Your task to perform on an android device: Open Wikipedia Image 0: 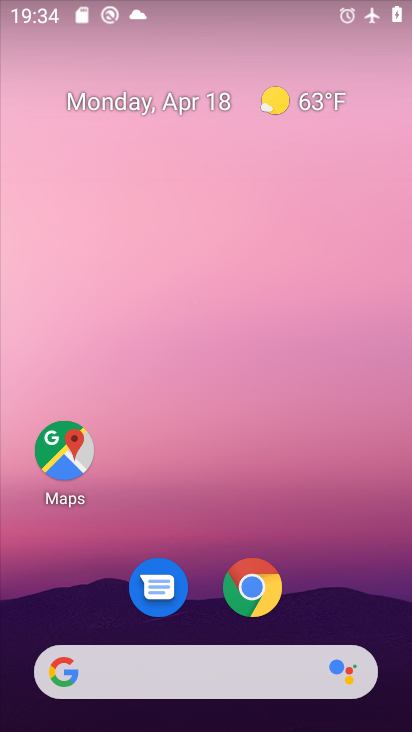
Step 0: click (270, 586)
Your task to perform on an android device: Open Wikipedia Image 1: 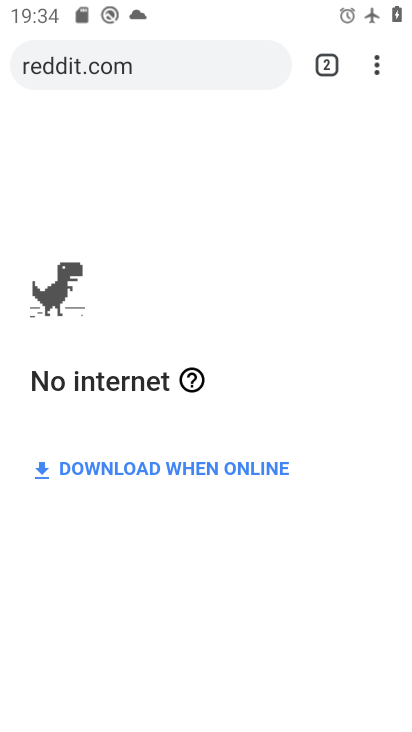
Step 1: press home button
Your task to perform on an android device: Open Wikipedia Image 2: 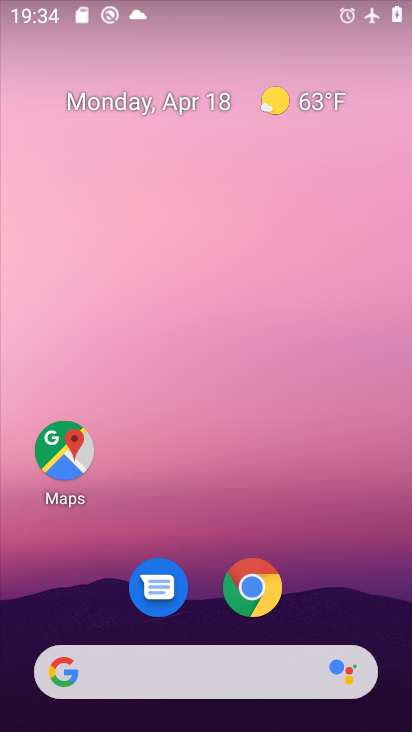
Step 2: drag from (353, 605) to (317, 108)
Your task to perform on an android device: Open Wikipedia Image 3: 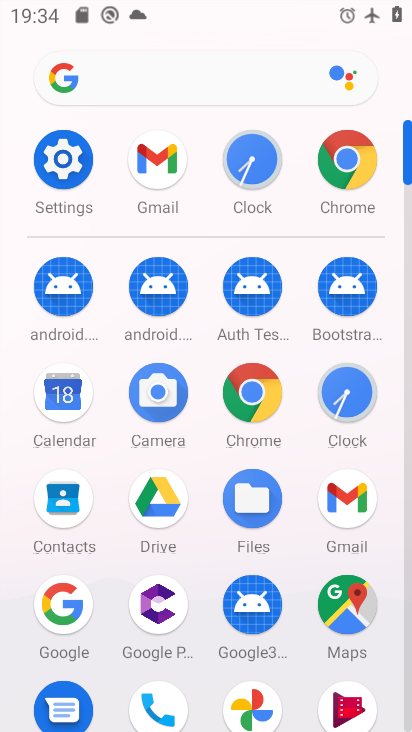
Step 3: click (45, 166)
Your task to perform on an android device: Open Wikipedia Image 4: 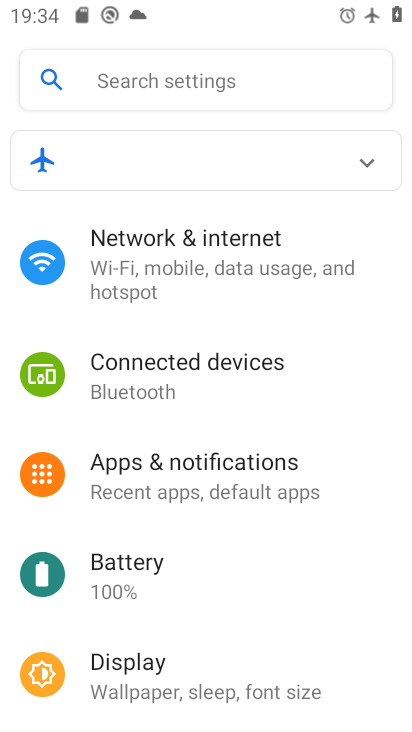
Step 4: click (254, 263)
Your task to perform on an android device: Open Wikipedia Image 5: 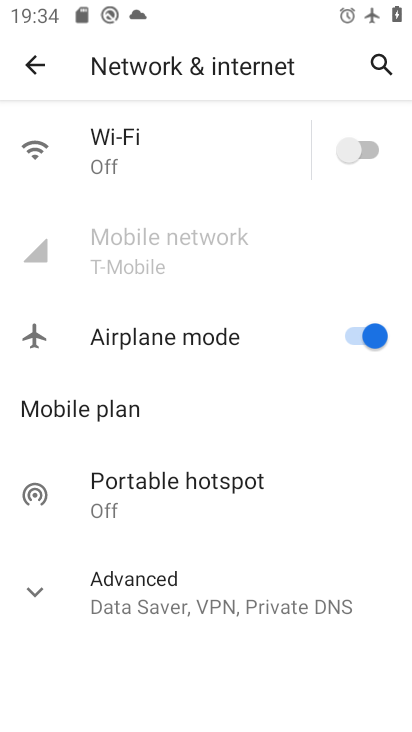
Step 5: click (357, 325)
Your task to perform on an android device: Open Wikipedia Image 6: 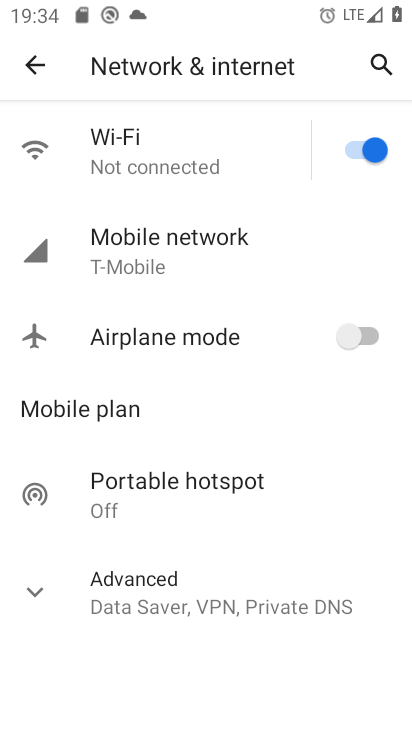
Step 6: press home button
Your task to perform on an android device: Open Wikipedia Image 7: 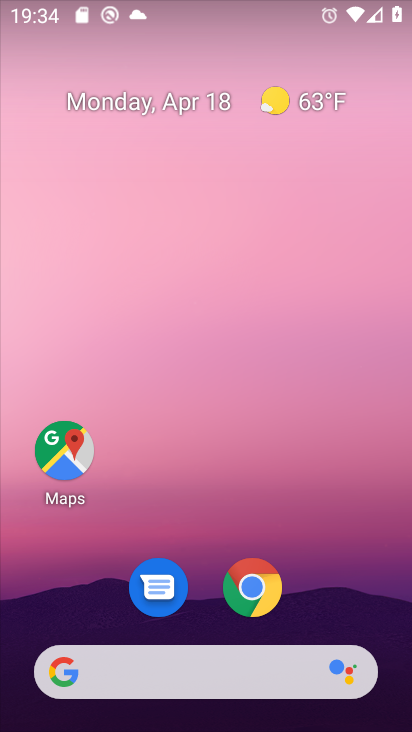
Step 7: click (241, 585)
Your task to perform on an android device: Open Wikipedia Image 8: 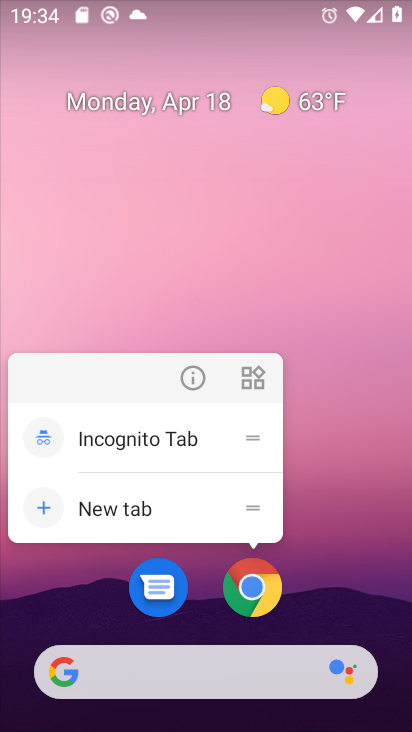
Step 8: click (241, 585)
Your task to perform on an android device: Open Wikipedia Image 9: 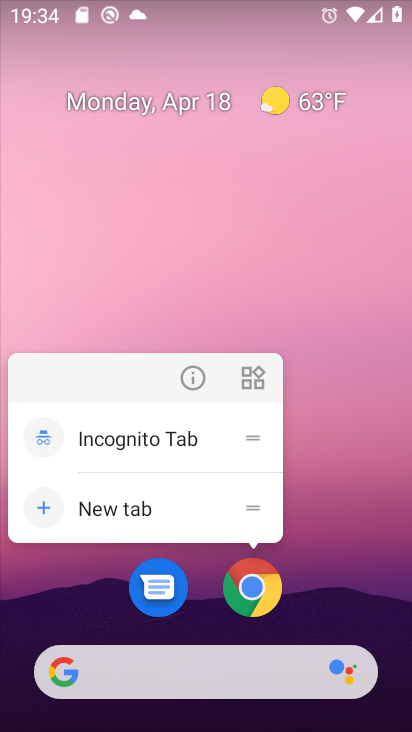
Step 9: click (255, 591)
Your task to perform on an android device: Open Wikipedia Image 10: 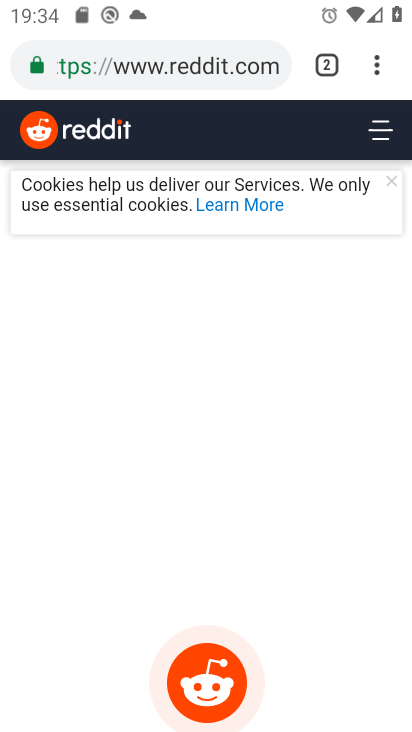
Step 10: click (242, 70)
Your task to perform on an android device: Open Wikipedia Image 11: 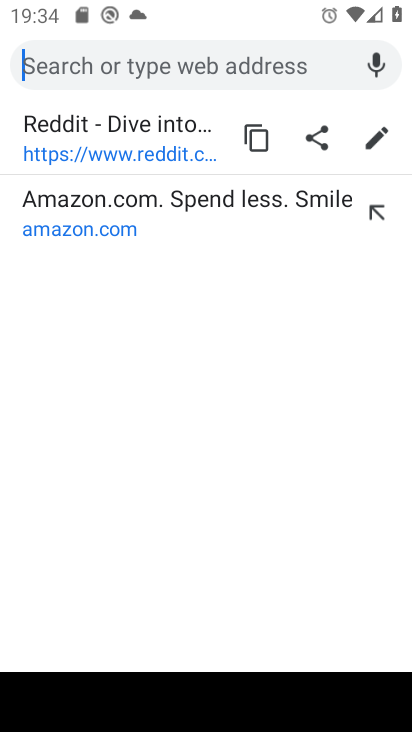
Step 11: type "wikipedia"
Your task to perform on an android device: Open Wikipedia Image 12: 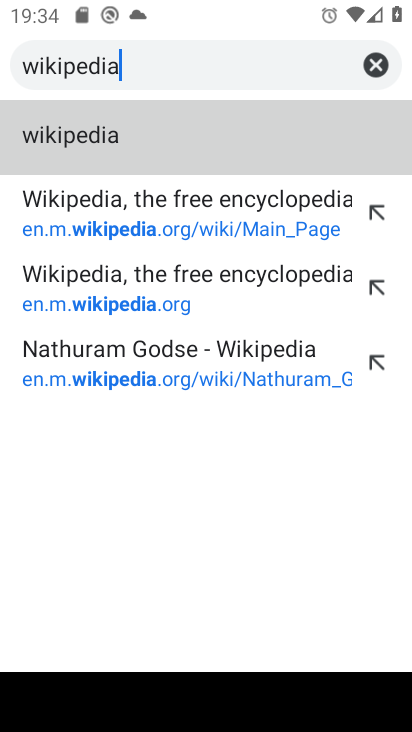
Step 12: click (211, 205)
Your task to perform on an android device: Open Wikipedia Image 13: 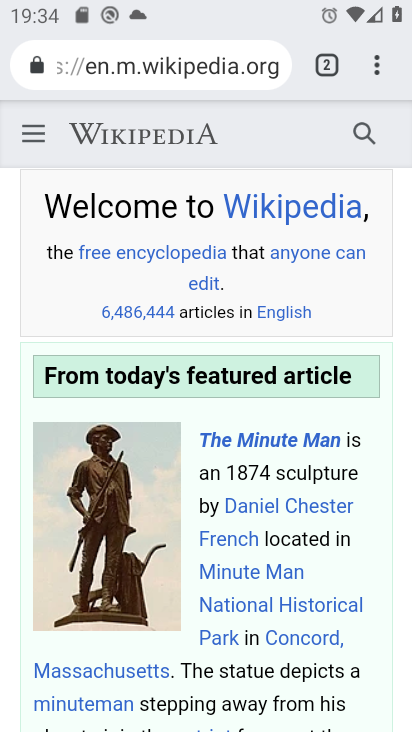
Step 13: task complete